Your task to perform on an android device: What is the news today? Image 0: 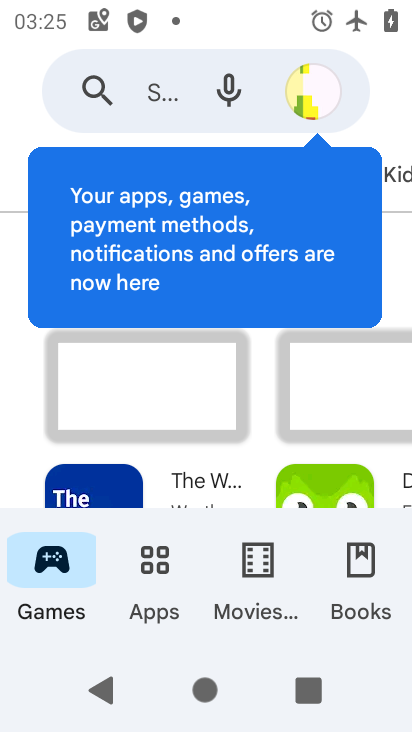
Step 0: press home button
Your task to perform on an android device: What is the news today? Image 1: 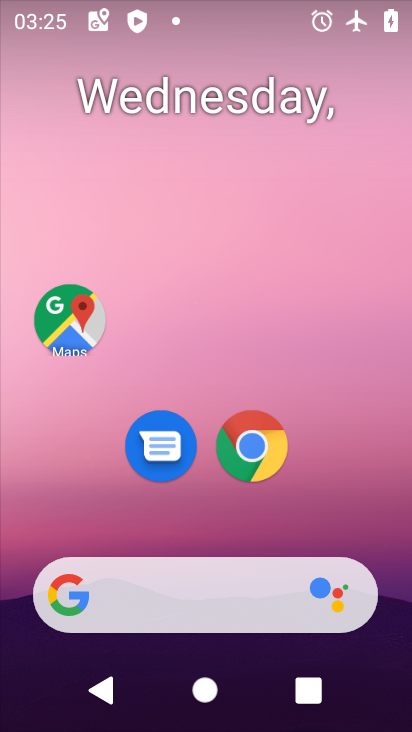
Step 1: drag from (198, 527) to (230, 245)
Your task to perform on an android device: What is the news today? Image 2: 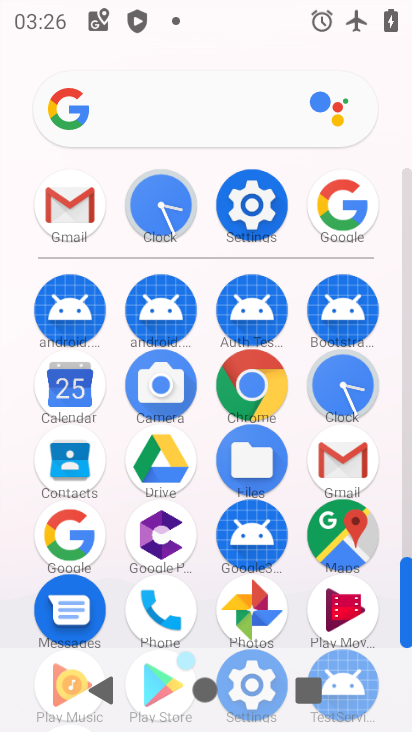
Step 2: click (84, 530)
Your task to perform on an android device: What is the news today? Image 3: 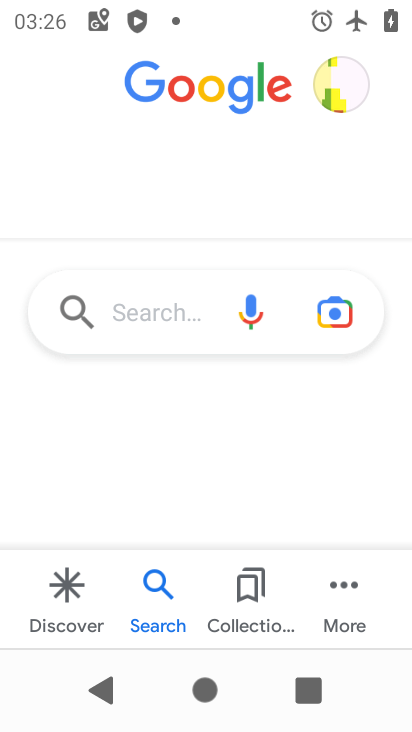
Step 3: click (145, 326)
Your task to perform on an android device: What is the news today? Image 4: 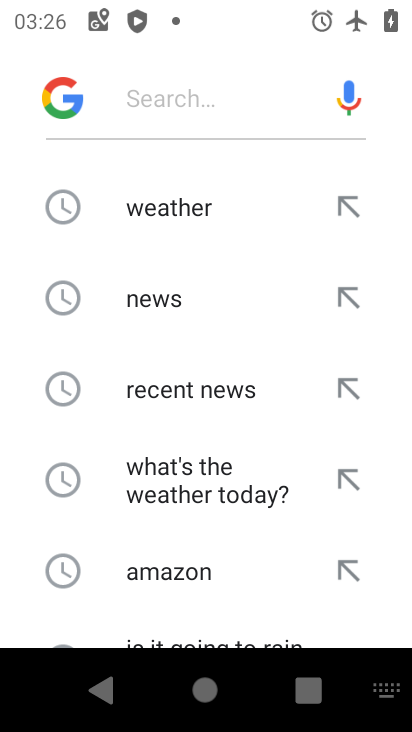
Step 4: click (165, 313)
Your task to perform on an android device: What is the news today? Image 5: 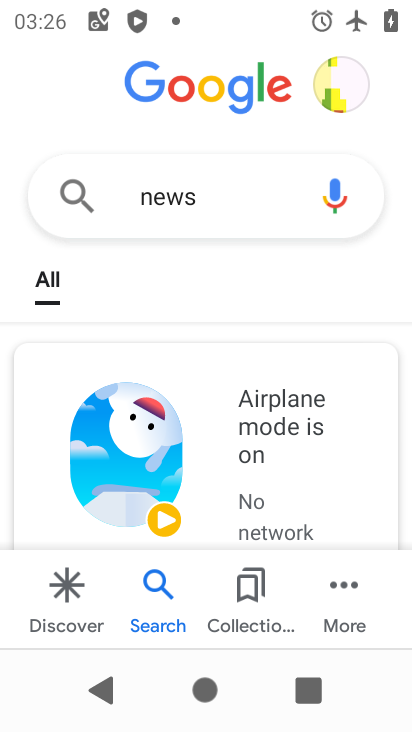
Step 5: task complete